Your task to perform on an android device: turn on the 24-hour format for clock Image 0: 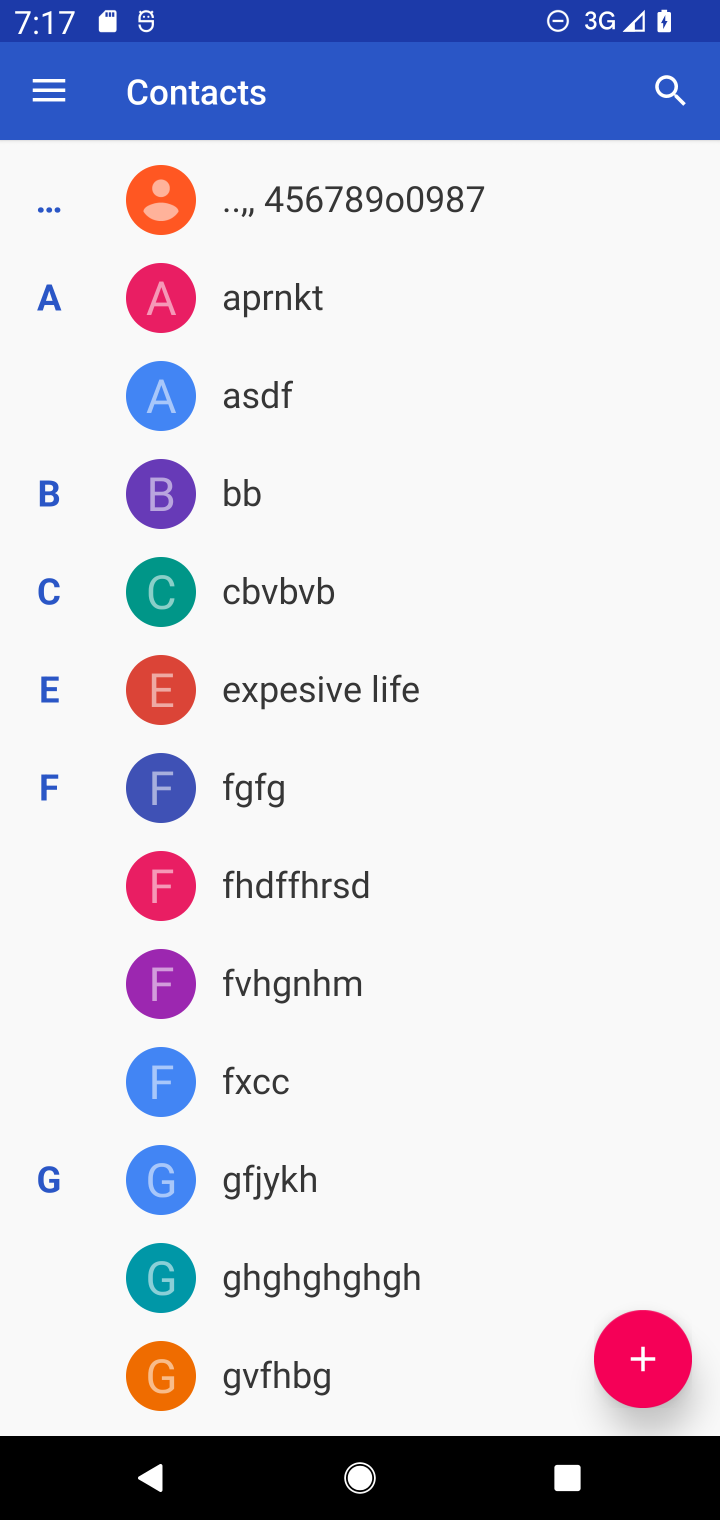
Step 0: press home button
Your task to perform on an android device: turn on the 24-hour format for clock Image 1: 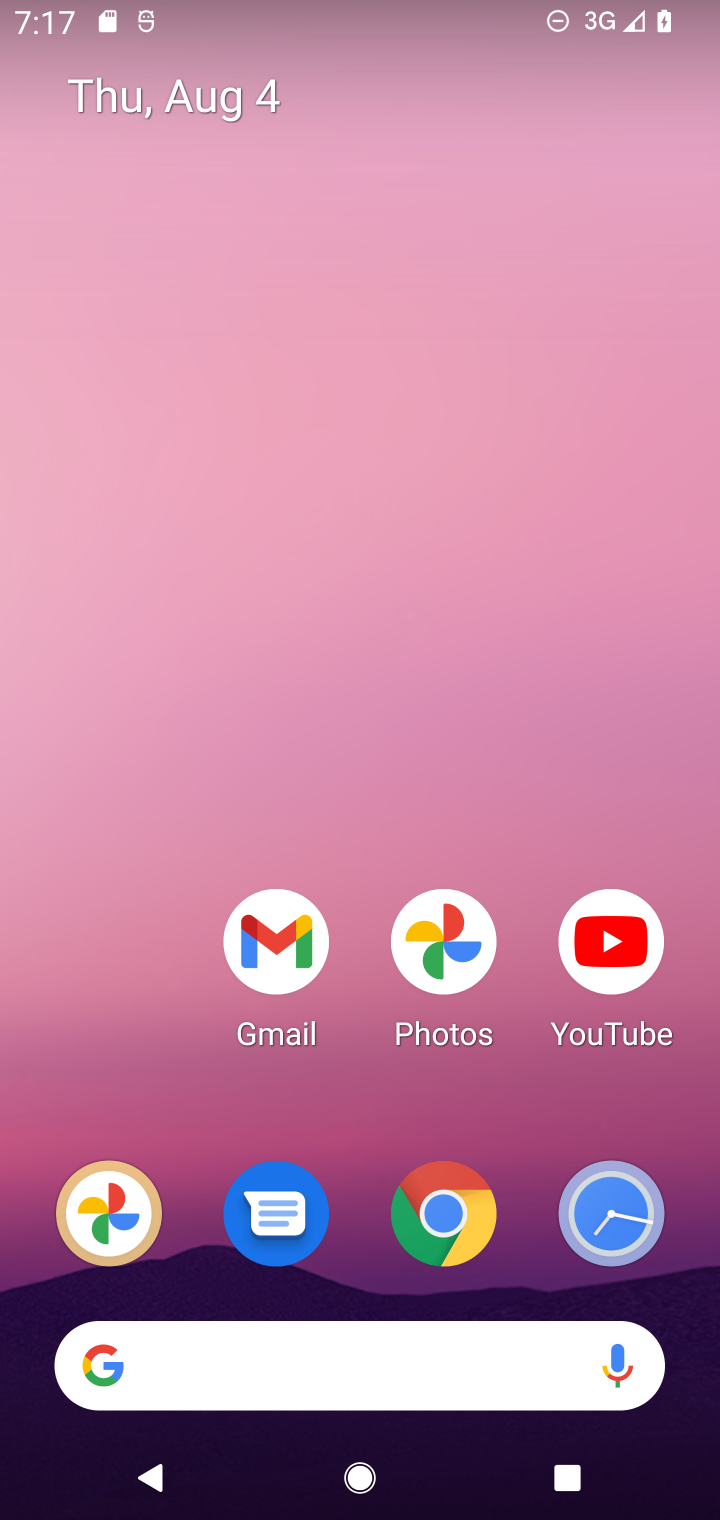
Step 1: drag from (134, 1081) to (132, 221)
Your task to perform on an android device: turn on the 24-hour format for clock Image 2: 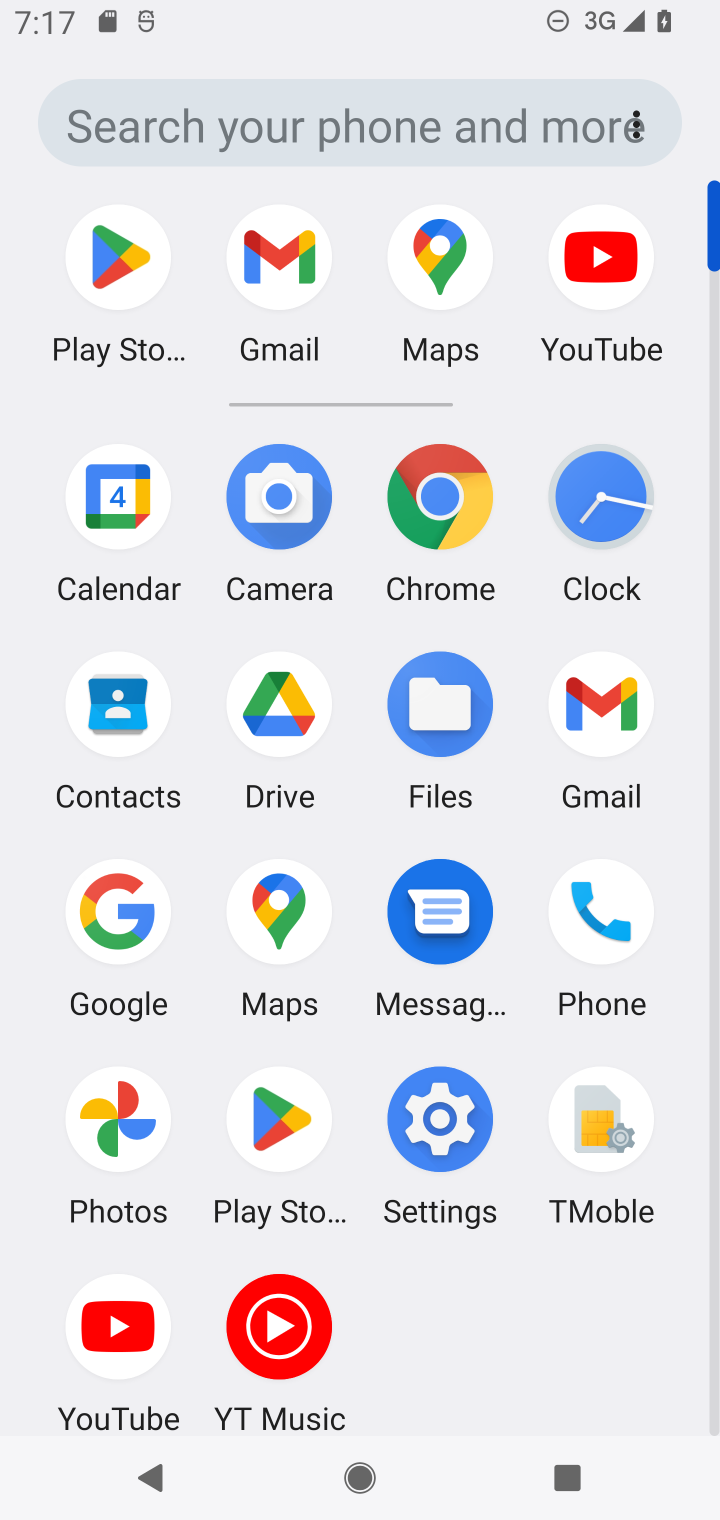
Step 2: click (609, 511)
Your task to perform on an android device: turn on the 24-hour format for clock Image 3: 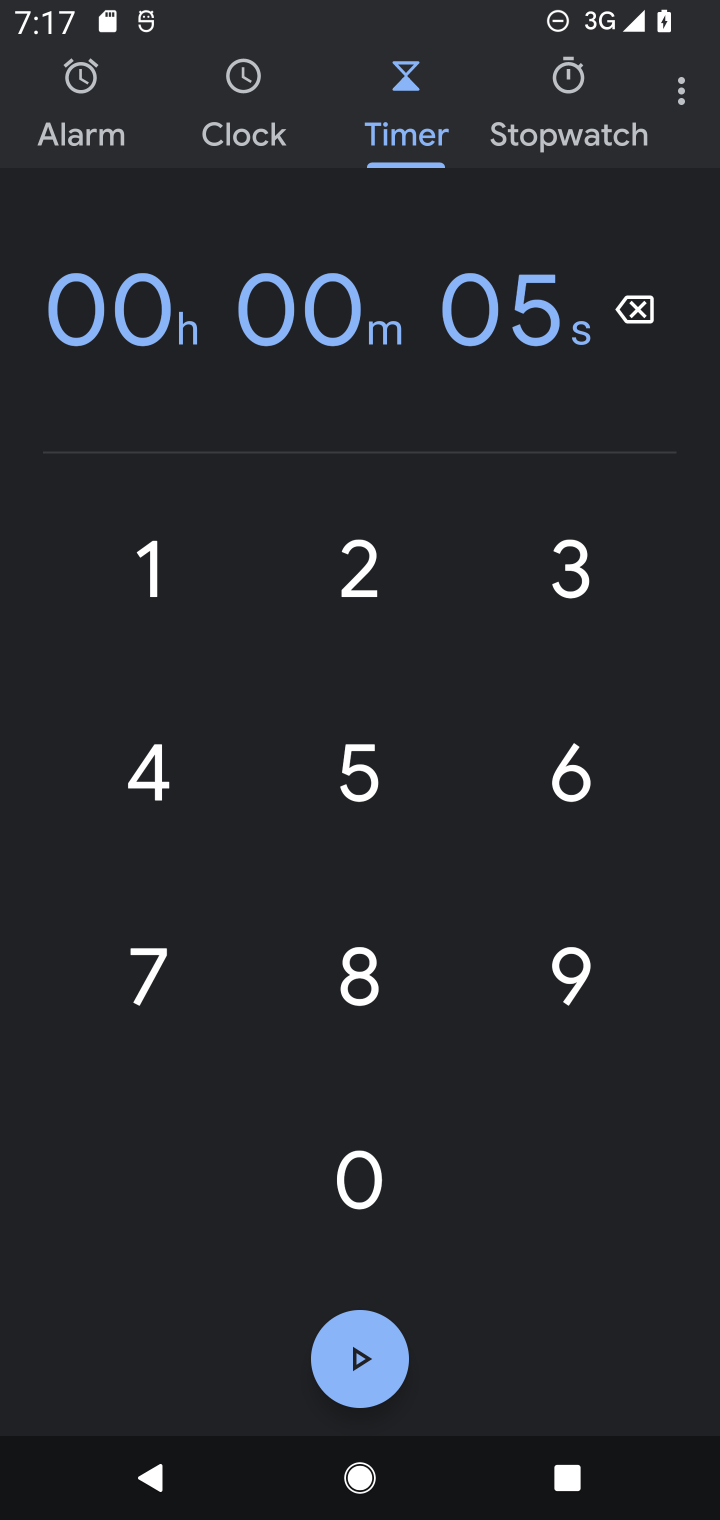
Step 3: click (677, 92)
Your task to perform on an android device: turn on the 24-hour format for clock Image 4: 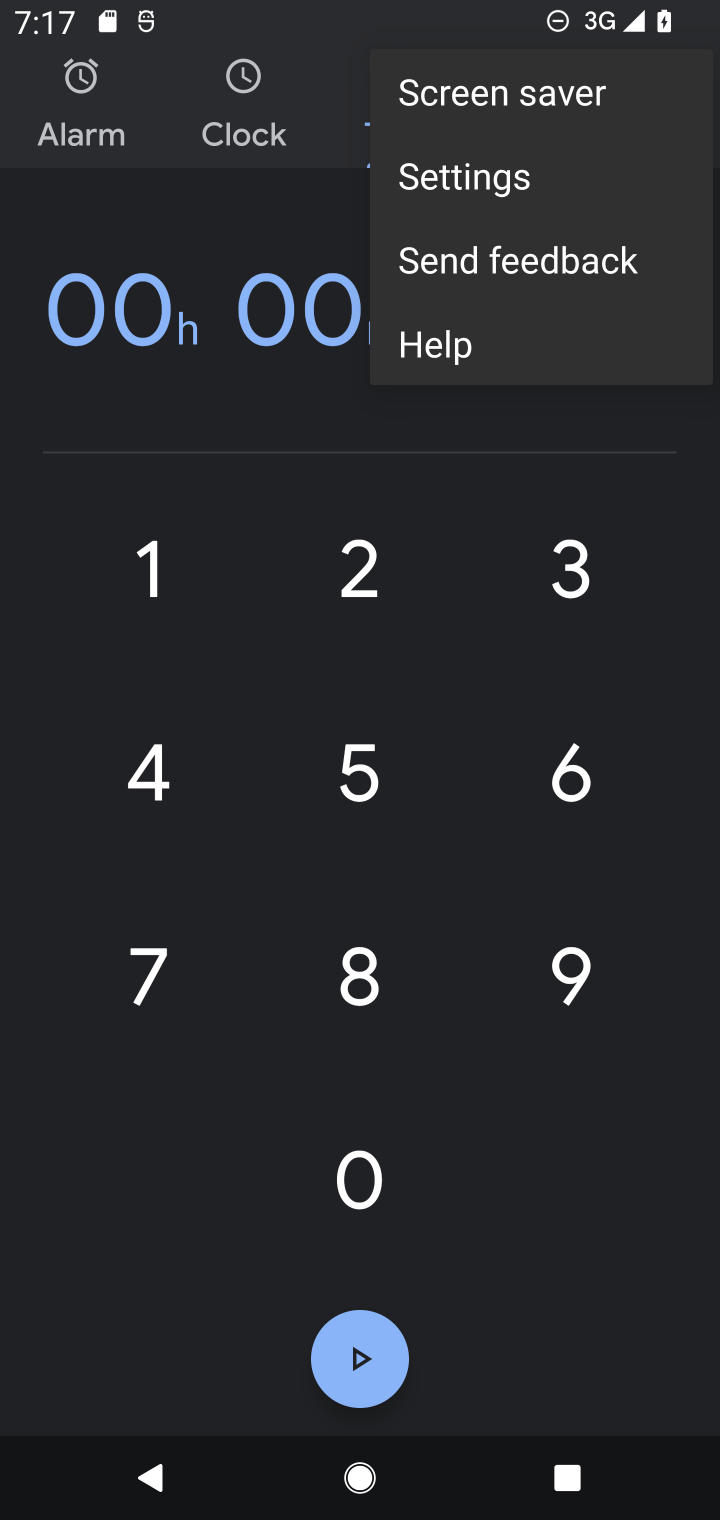
Step 4: click (550, 206)
Your task to perform on an android device: turn on the 24-hour format for clock Image 5: 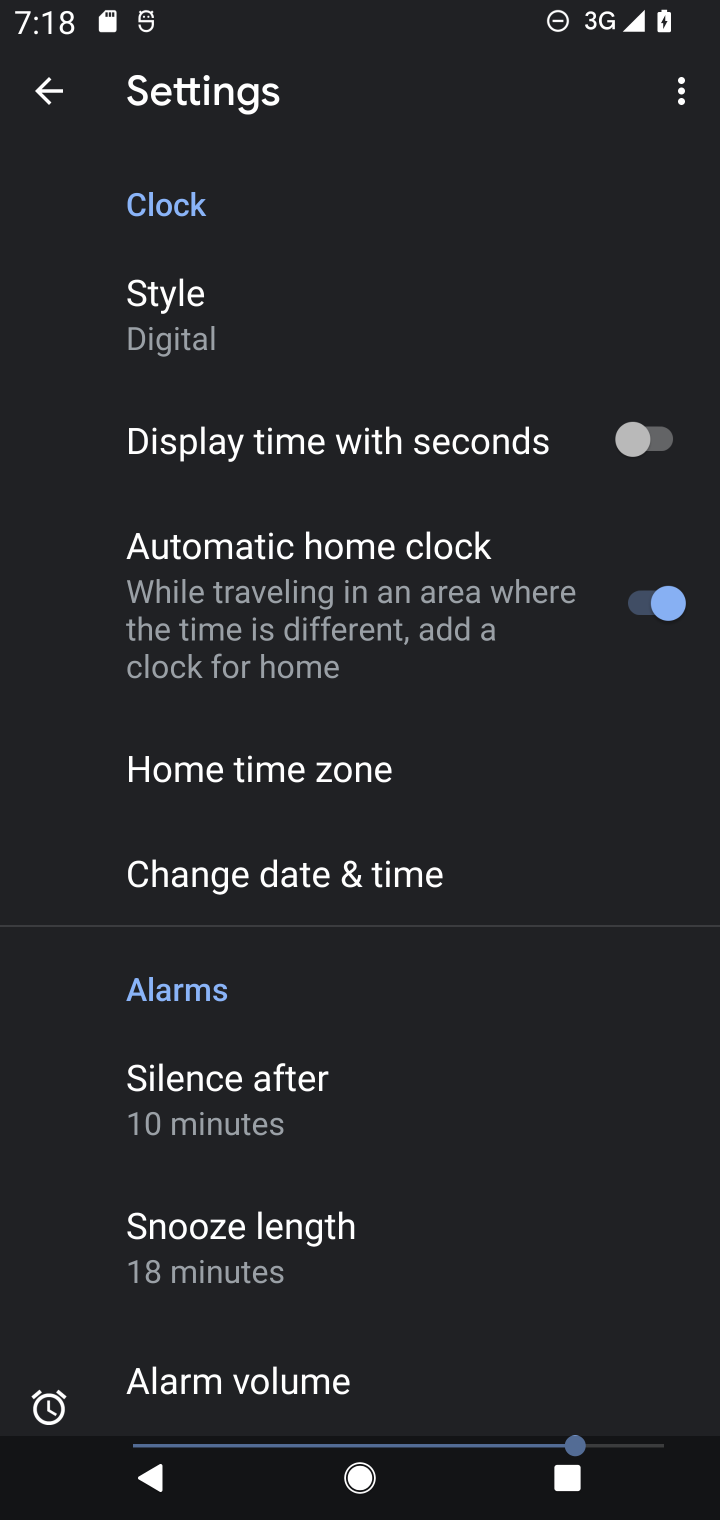
Step 5: drag from (534, 1056) to (551, 624)
Your task to perform on an android device: turn on the 24-hour format for clock Image 6: 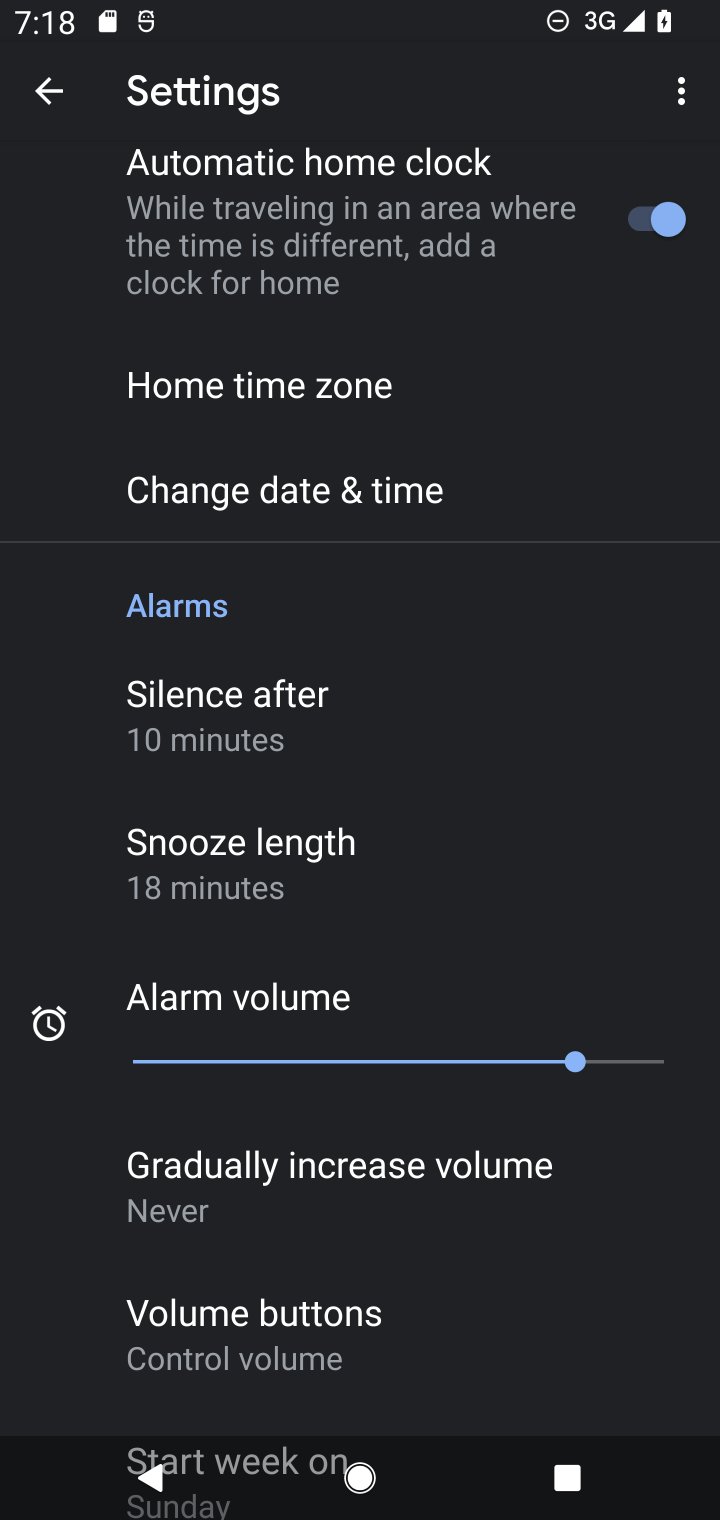
Step 6: drag from (544, 1183) to (552, 665)
Your task to perform on an android device: turn on the 24-hour format for clock Image 7: 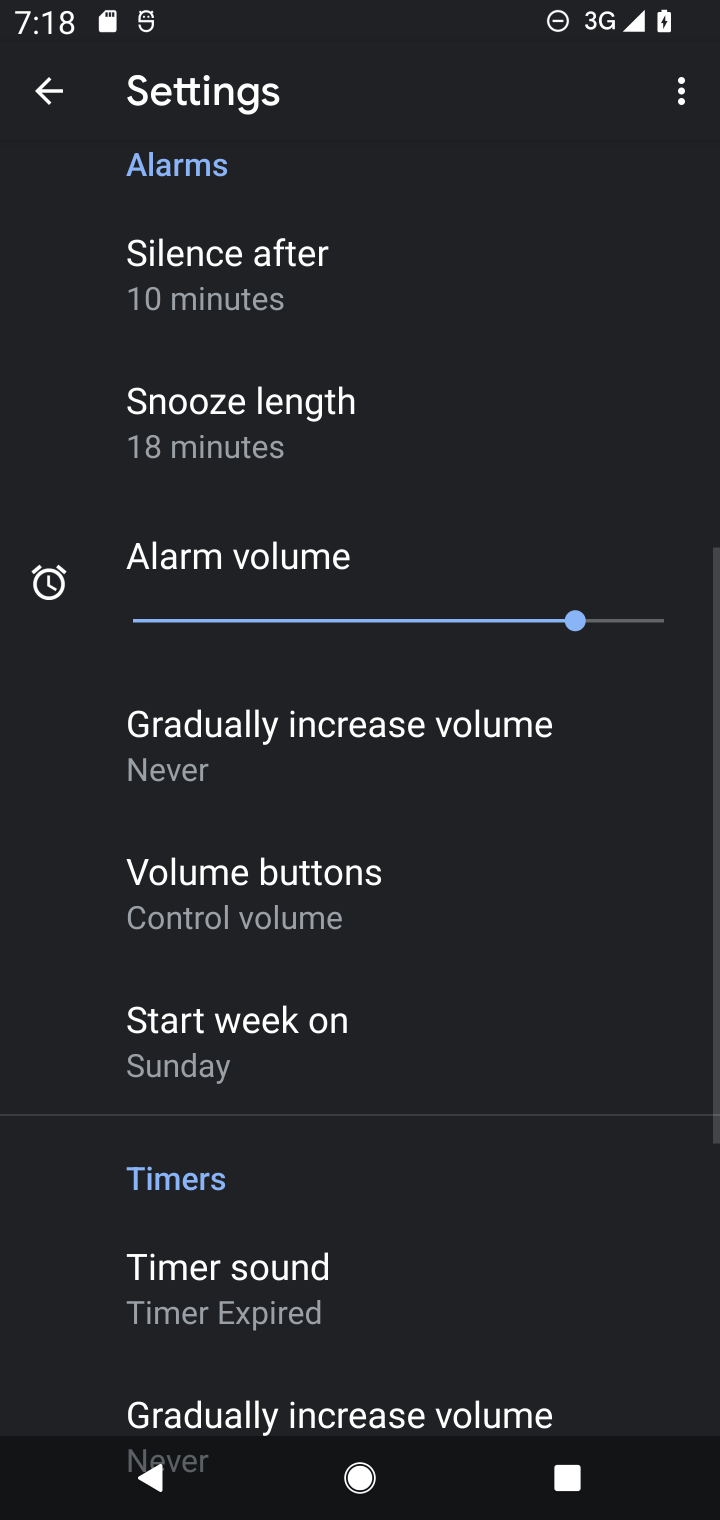
Step 7: drag from (554, 1065) to (558, 714)
Your task to perform on an android device: turn on the 24-hour format for clock Image 8: 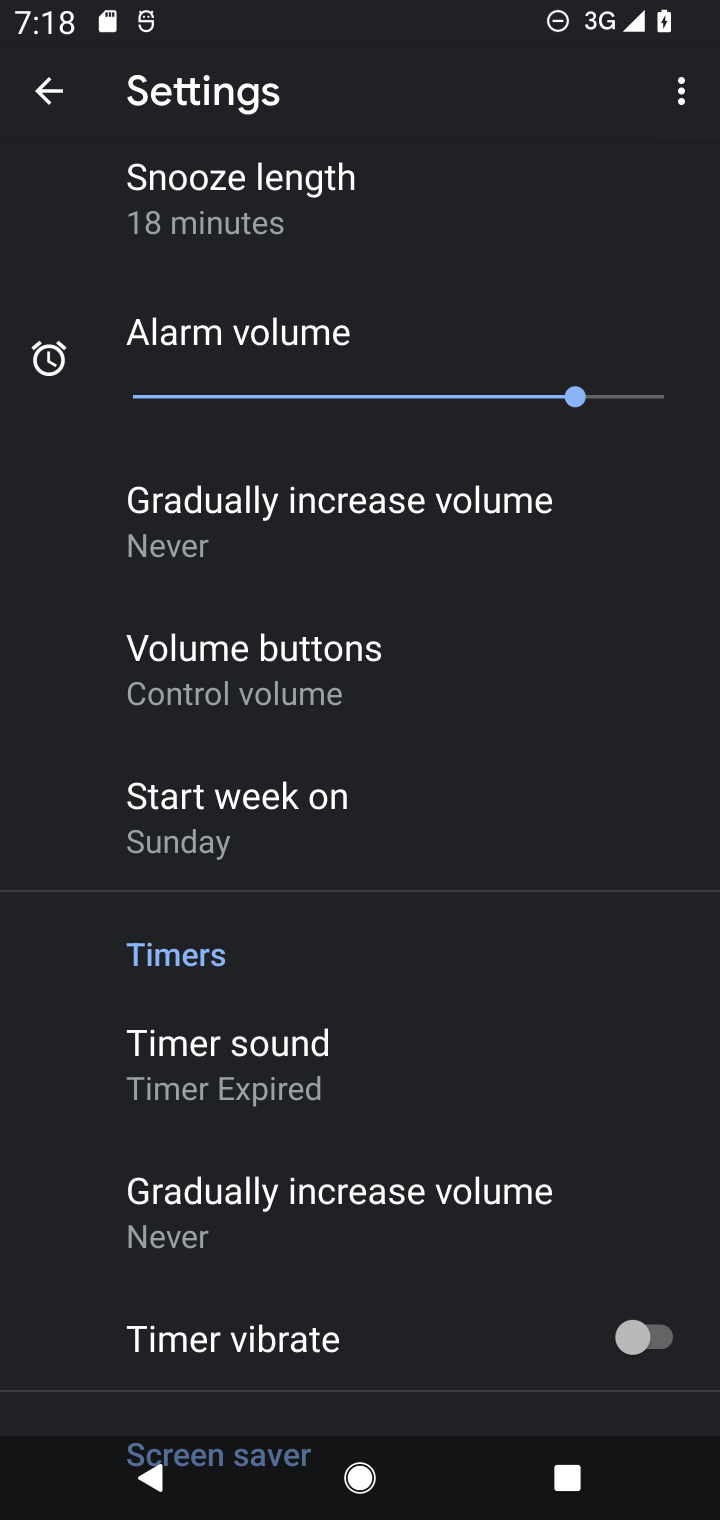
Step 8: drag from (479, 1323) to (492, 773)
Your task to perform on an android device: turn on the 24-hour format for clock Image 9: 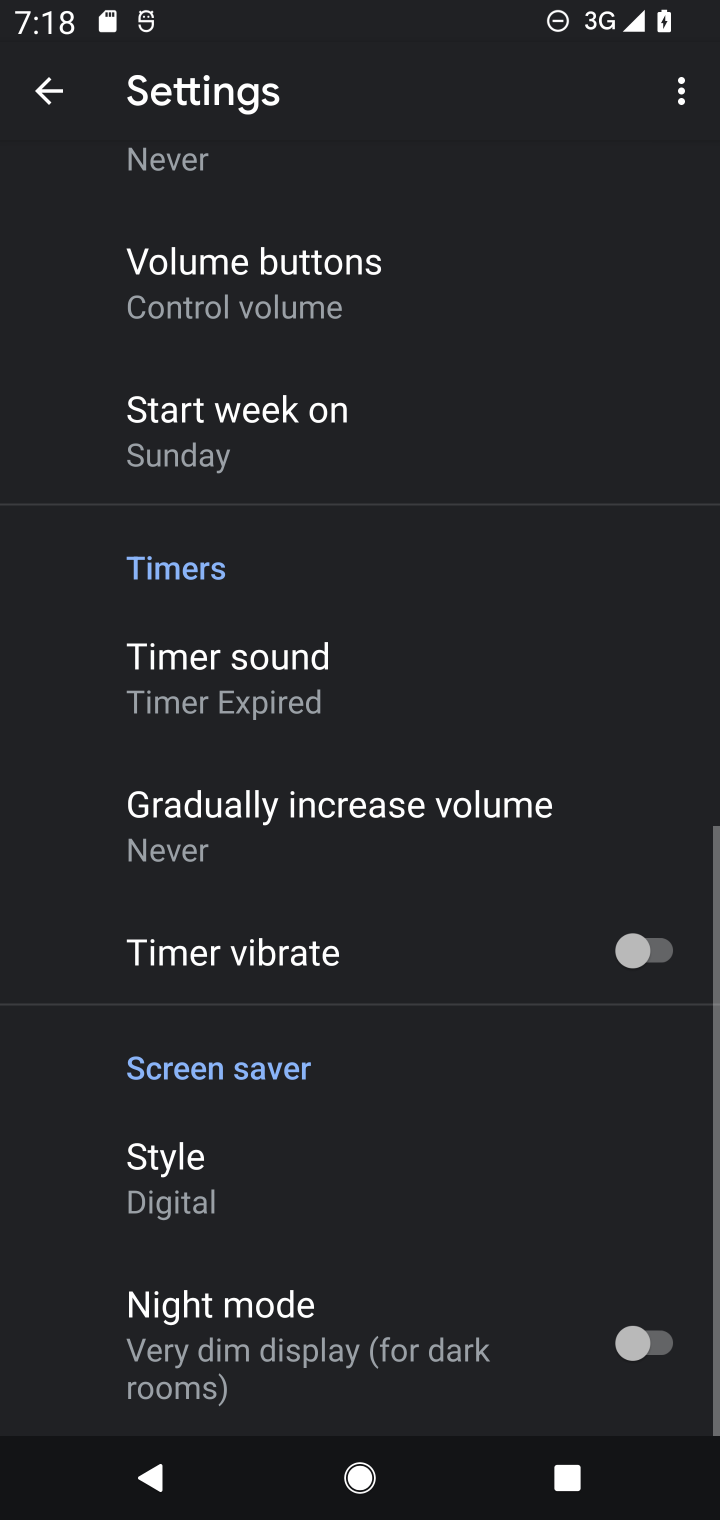
Step 9: drag from (490, 1146) to (501, 695)
Your task to perform on an android device: turn on the 24-hour format for clock Image 10: 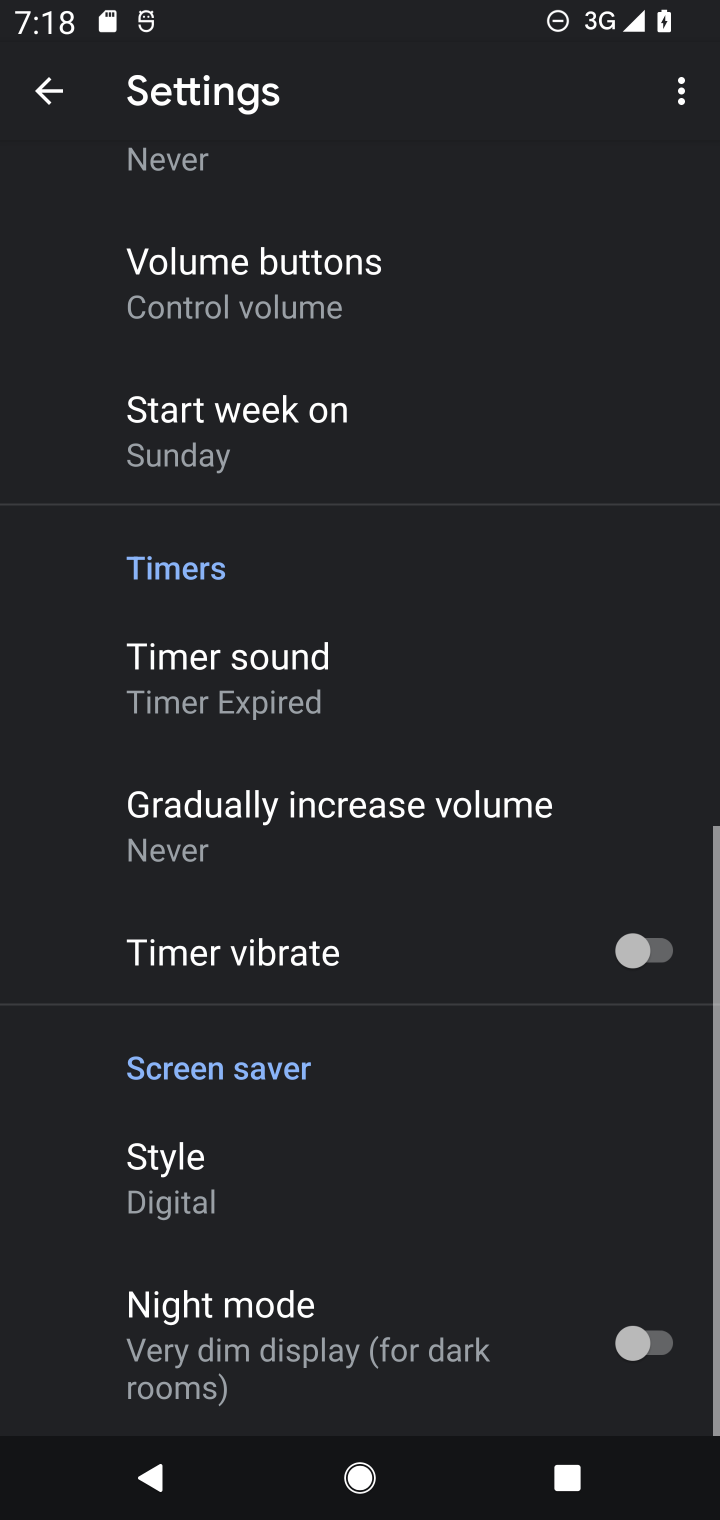
Step 10: drag from (523, 385) to (509, 782)
Your task to perform on an android device: turn on the 24-hour format for clock Image 11: 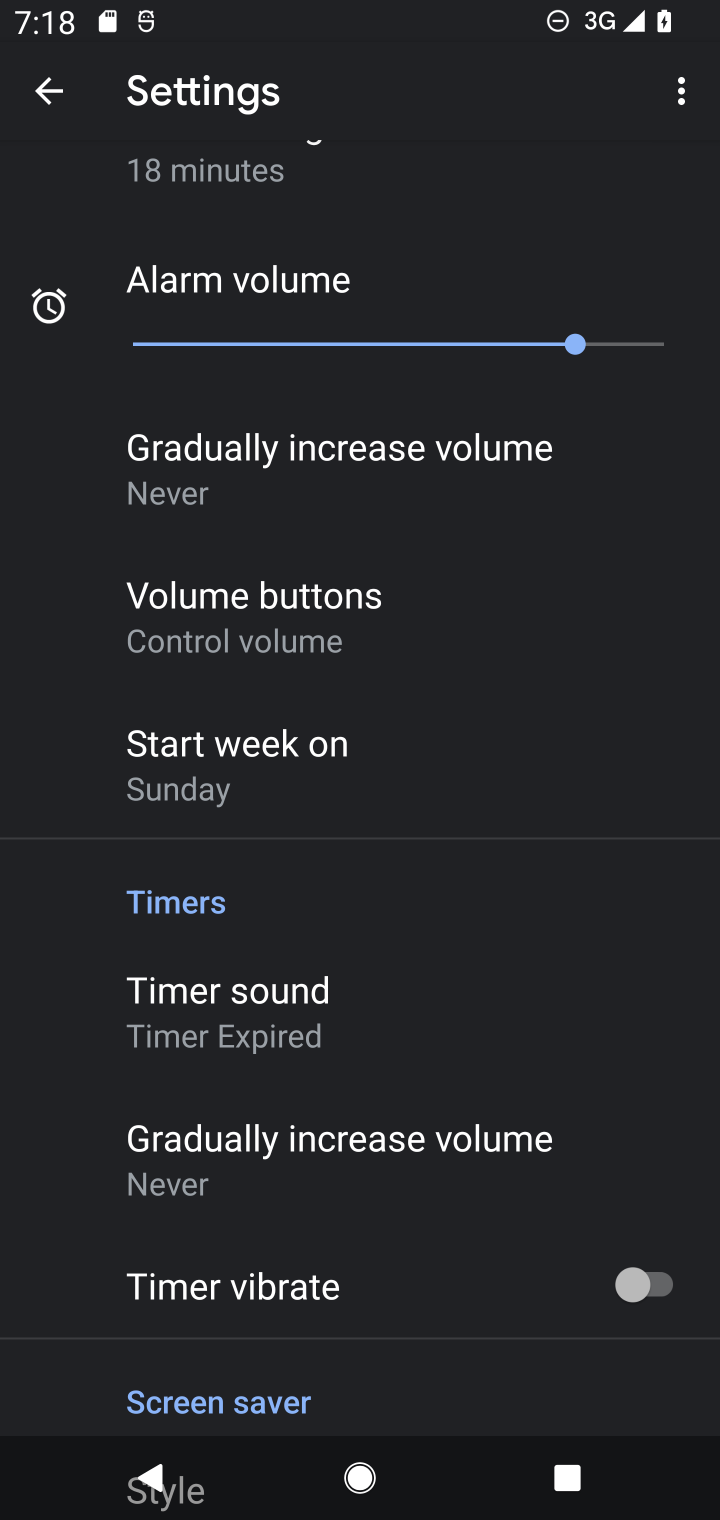
Step 11: drag from (627, 248) to (580, 788)
Your task to perform on an android device: turn on the 24-hour format for clock Image 12: 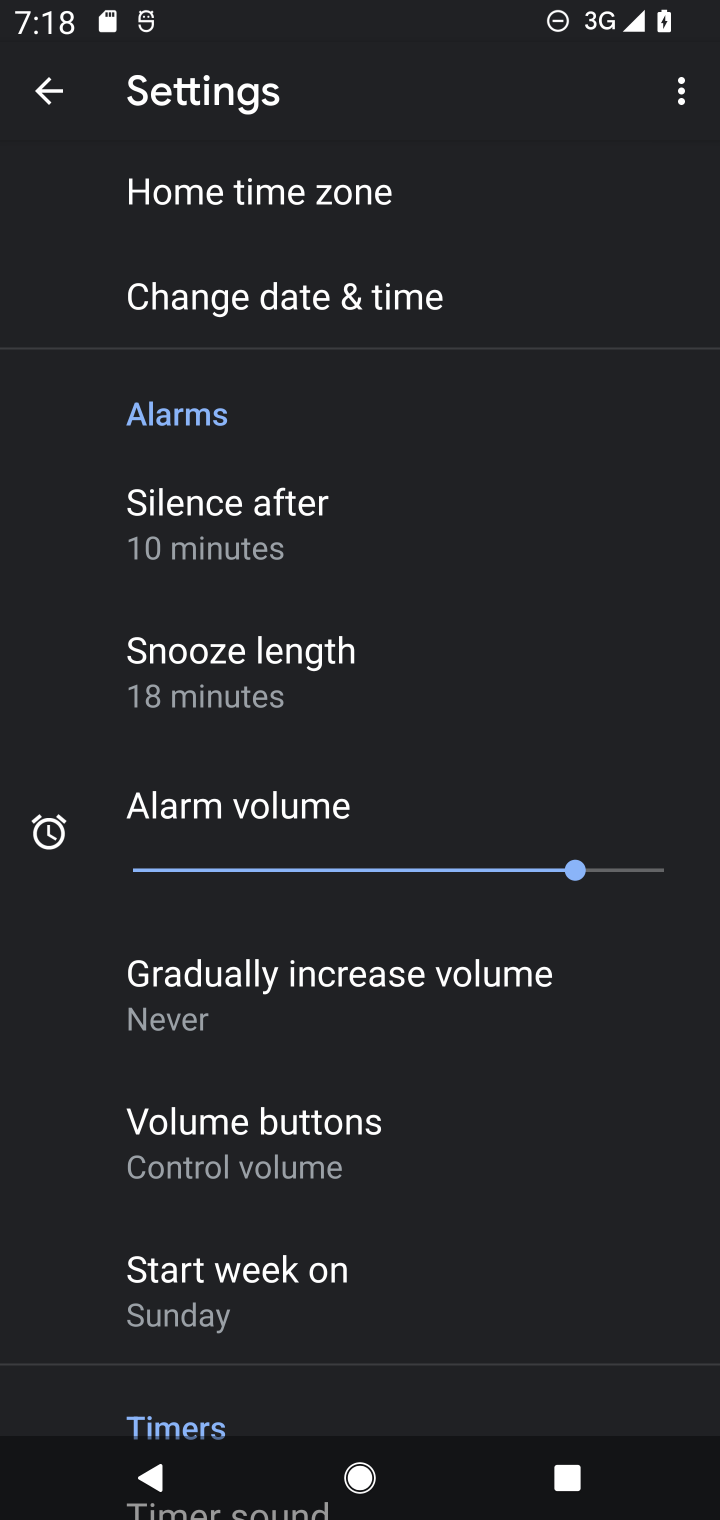
Step 12: drag from (533, 473) to (509, 989)
Your task to perform on an android device: turn on the 24-hour format for clock Image 13: 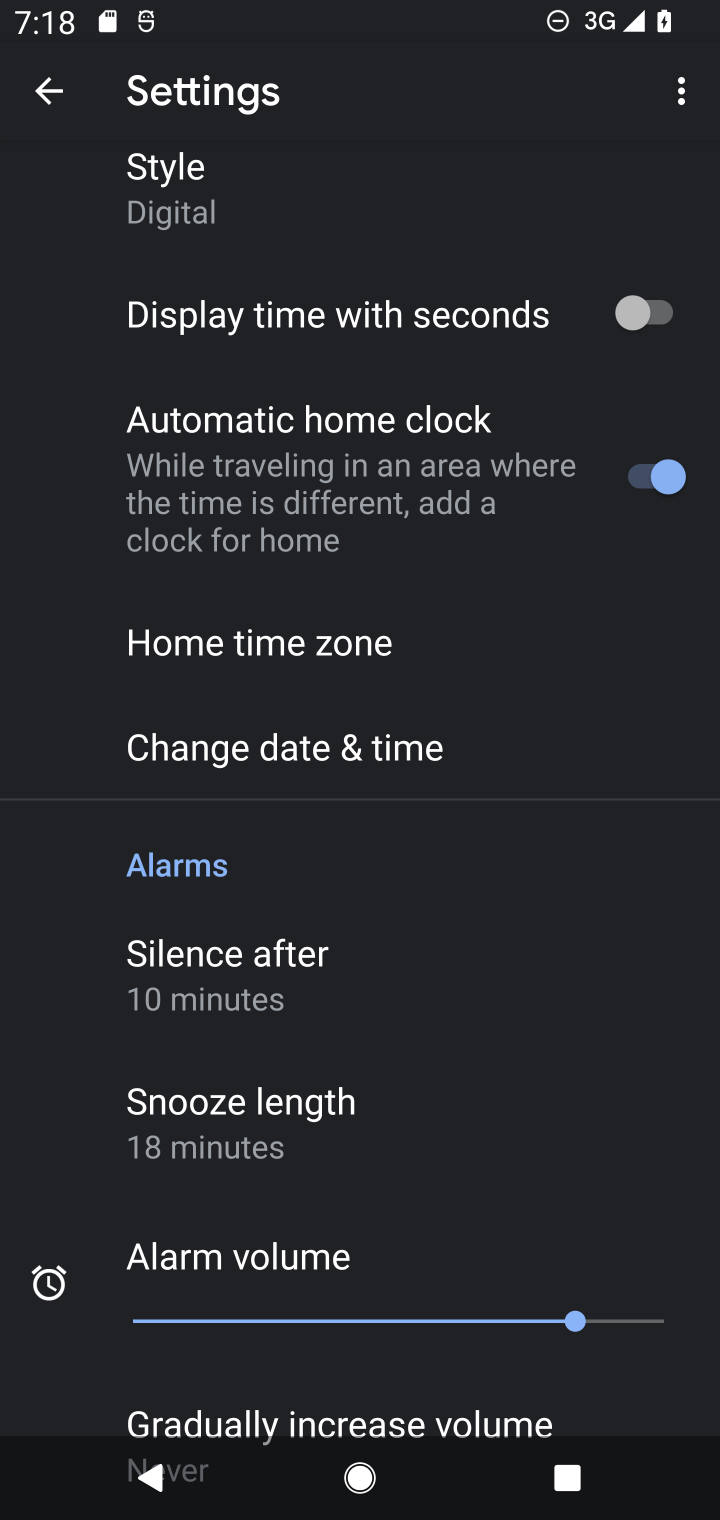
Step 13: drag from (528, 558) to (522, 969)
Your task to perform on an android device: turn on the 24-hour format for clock Image 14: 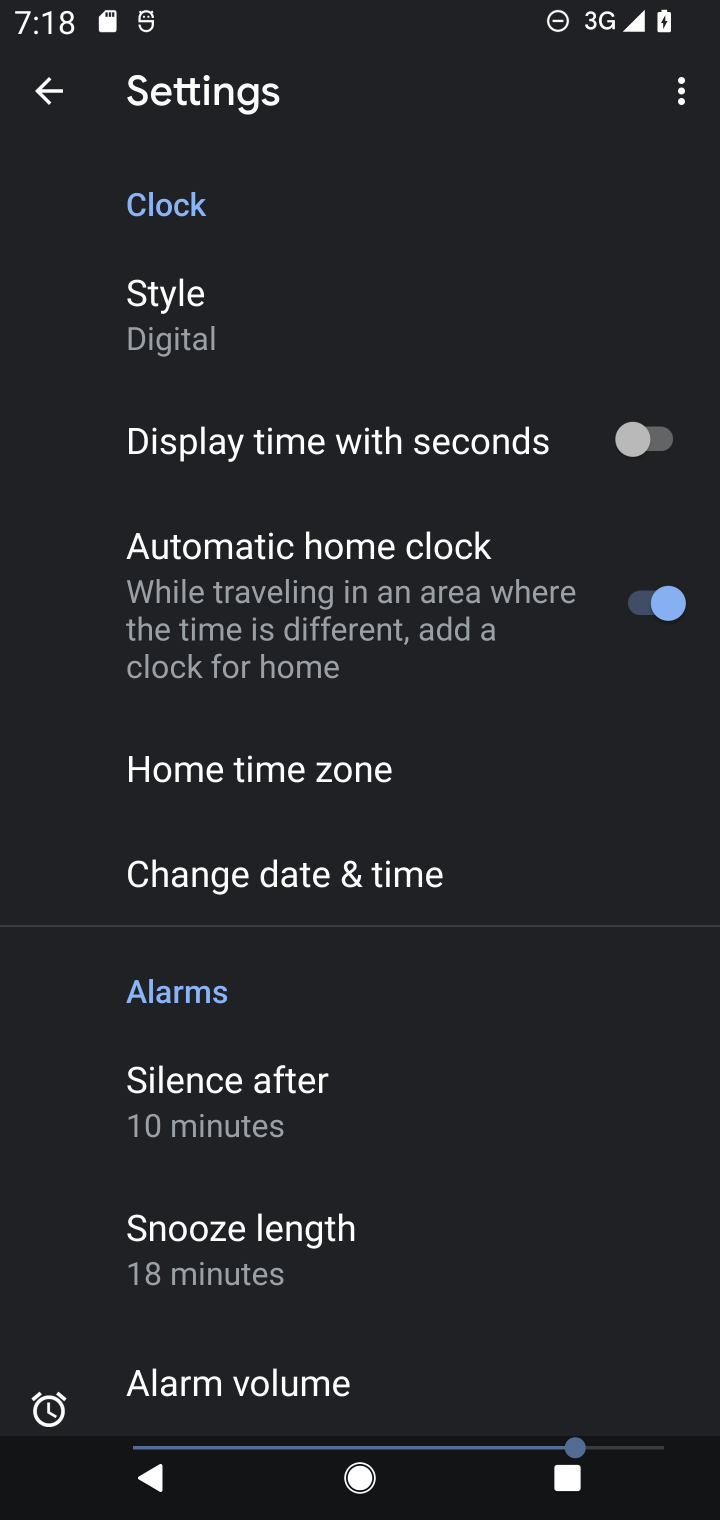
Step 14: click (380, 904)
Your task to perform on an android device: turn on the 24-hour format for clock Image 15: 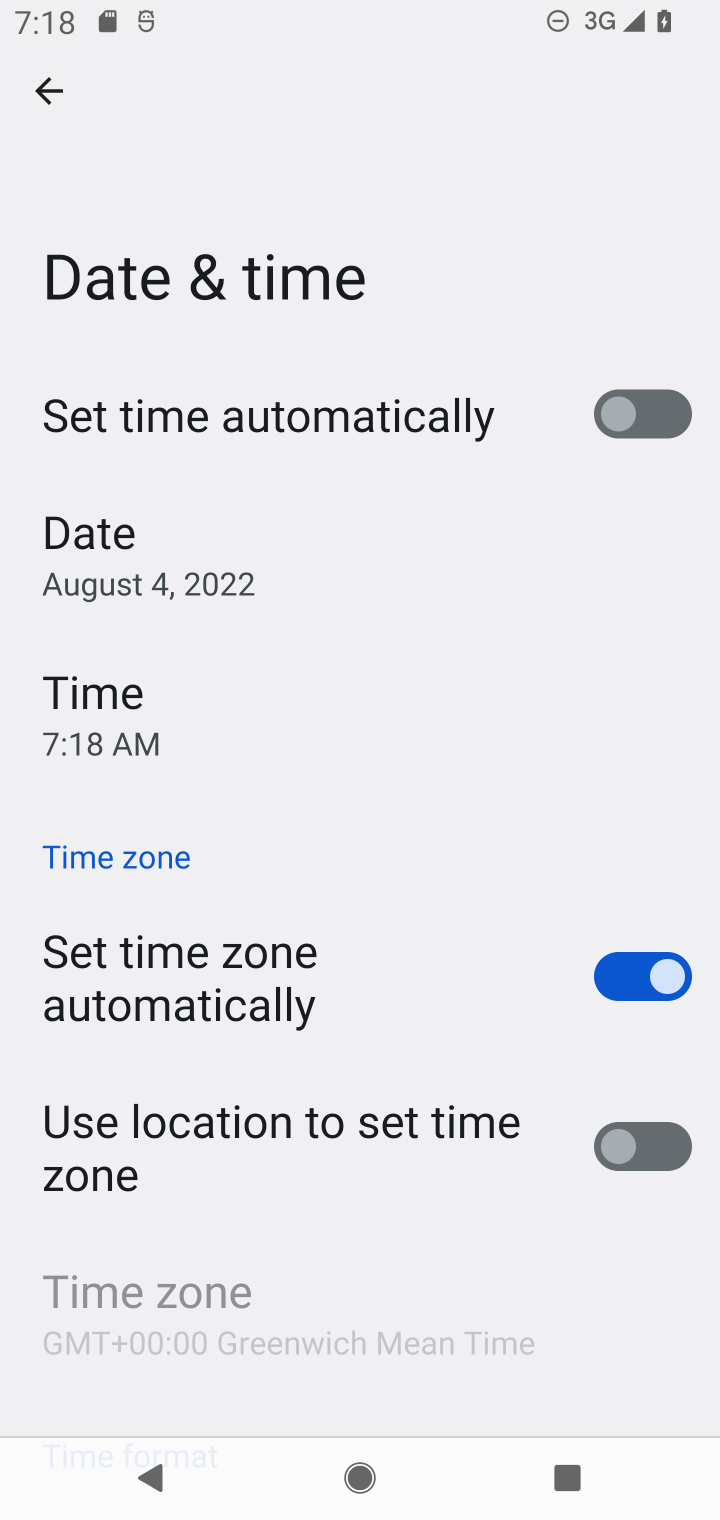
Step 15: drag from (455, 1134) to (461, 676)
Your task to perform on an android device: turn on the 24-hour format for clock Image 16: 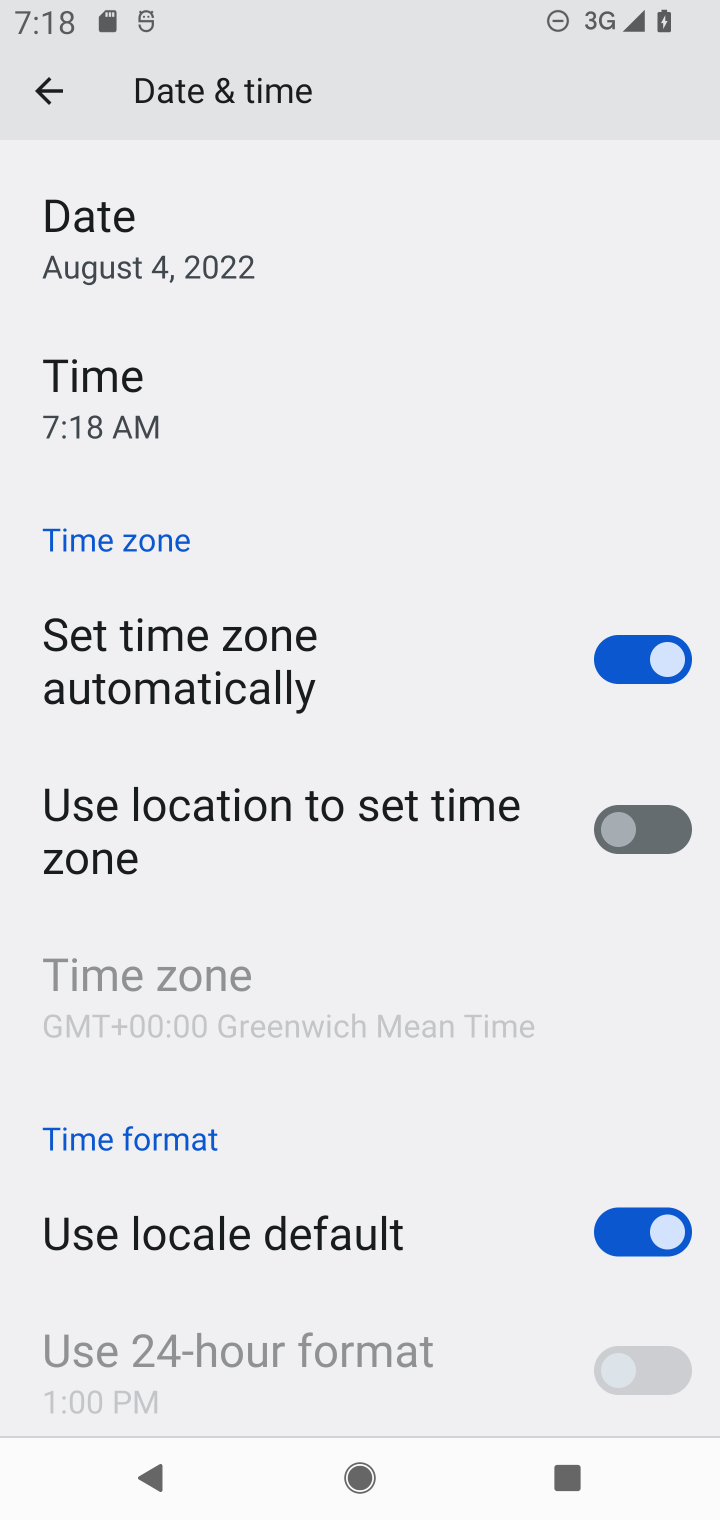
Step 16: drag from (449, 1246) to (457, 758)
Your task to perform on an android device: turn on the 24-hour format for clock Image 17: 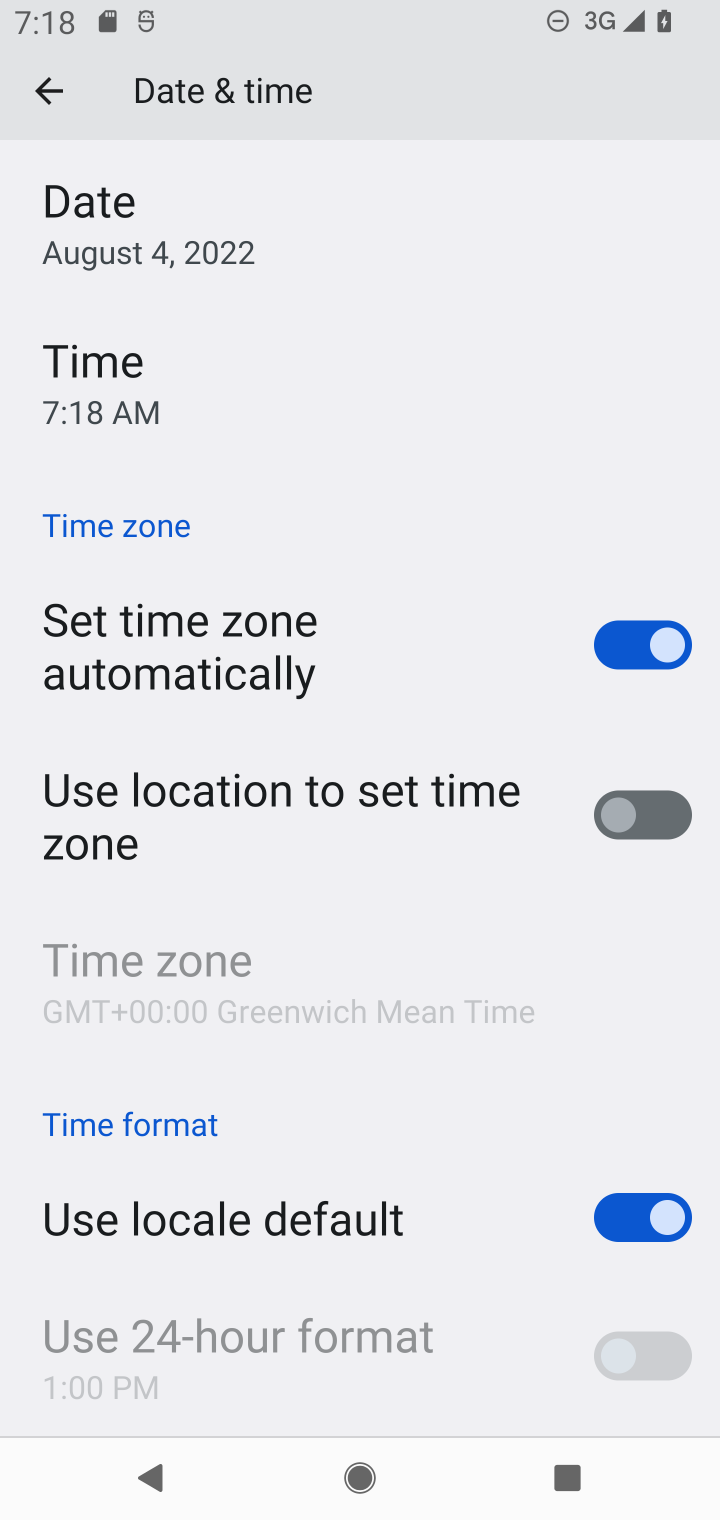
Step 17: click (634, 1205)
Your task to perform on an android device: turn on the 24-hour format for clock Image 18: 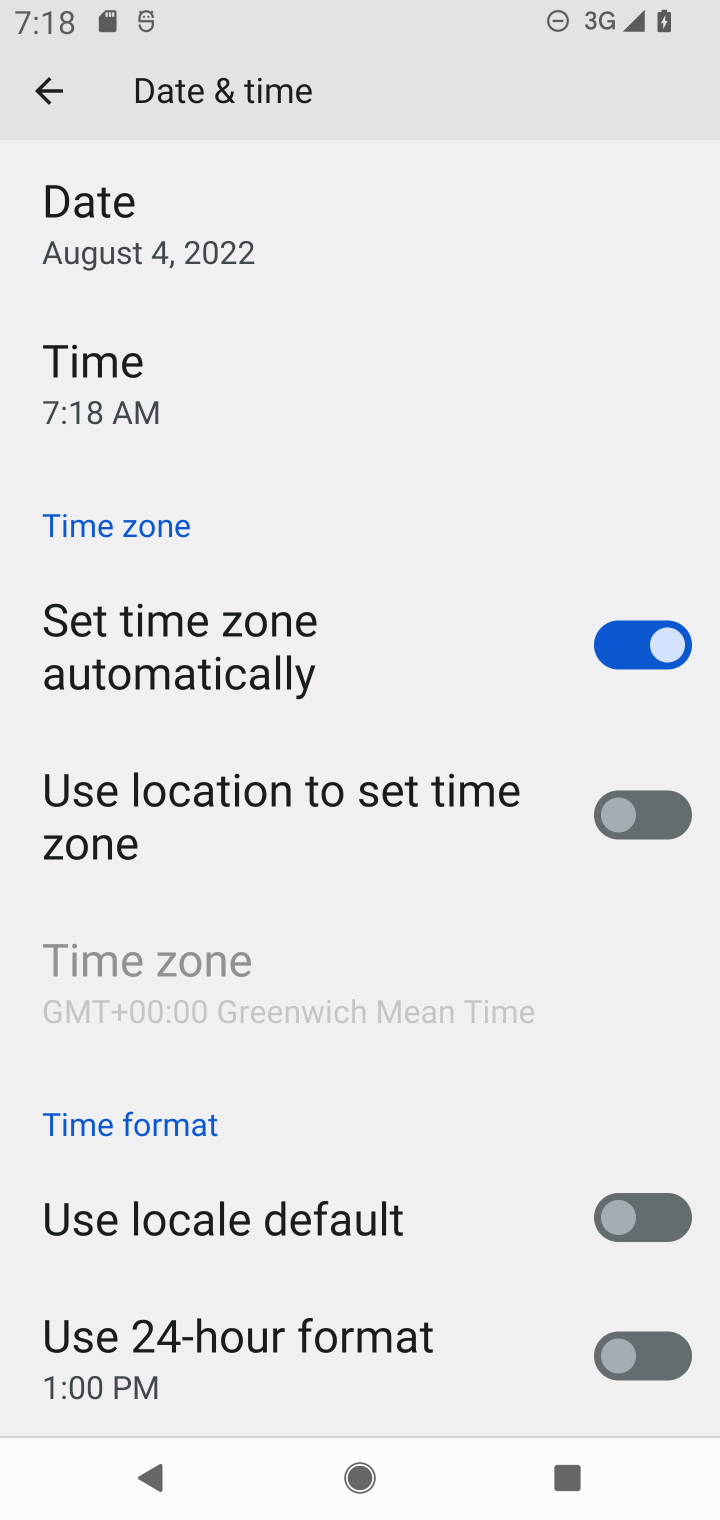
Step 18: click (609, 1357)
Your task to perform on an android device: turn on the 24-hour format for clock Image 19: 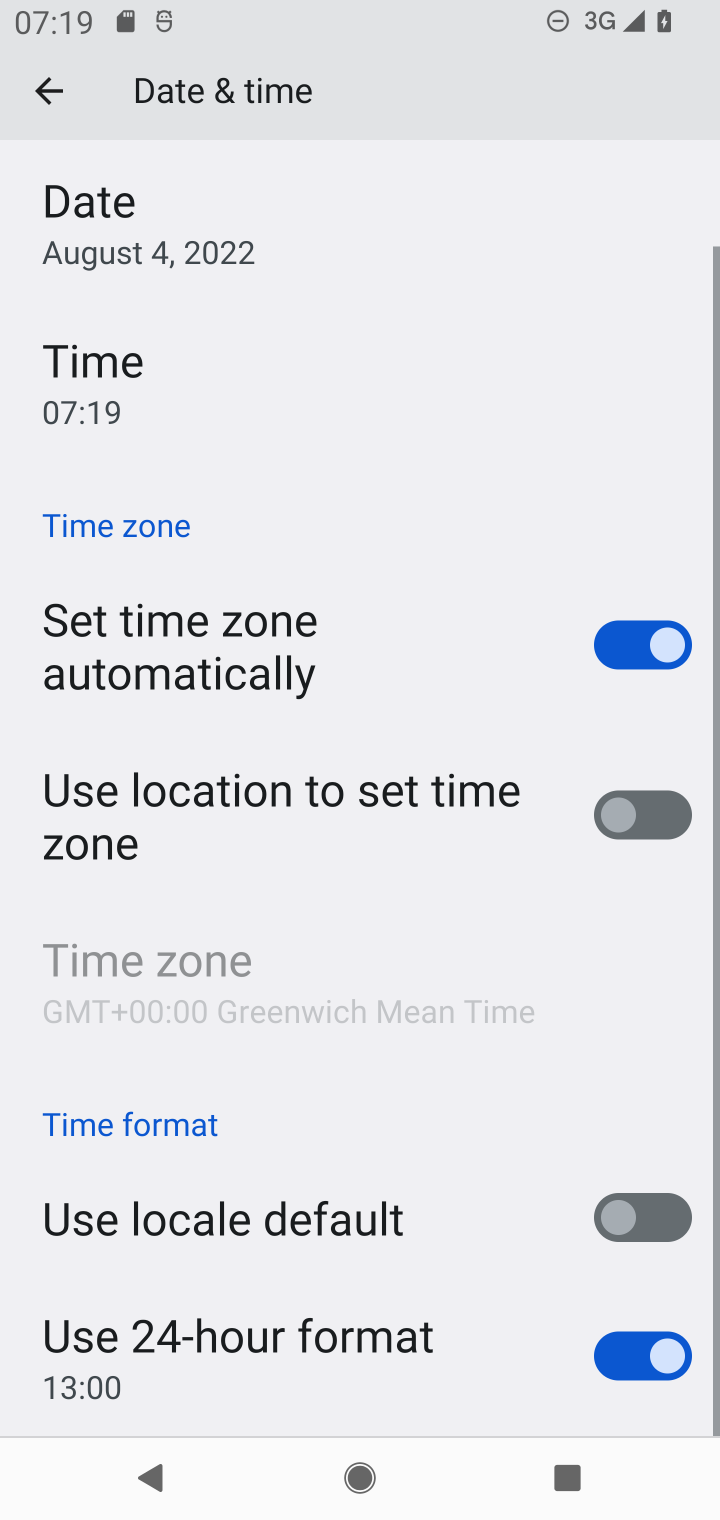
Step 19: task complete